Your task to perform on an android device: turn off wifi Image 0: 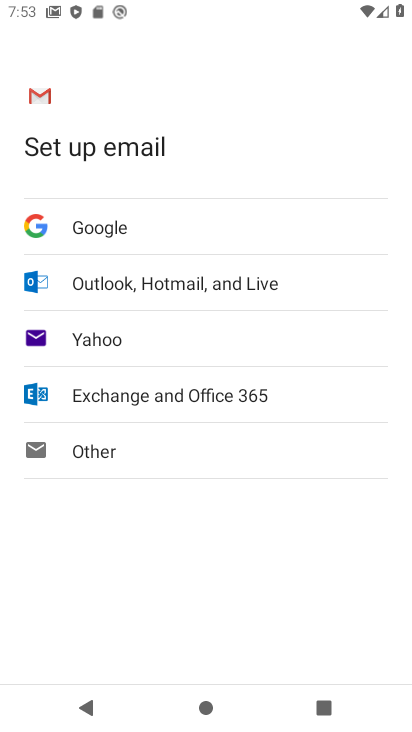
Step 0: drag from (253, 666) to (186, 81)
Your task to perform on an android device: turn off wifi Image 1: 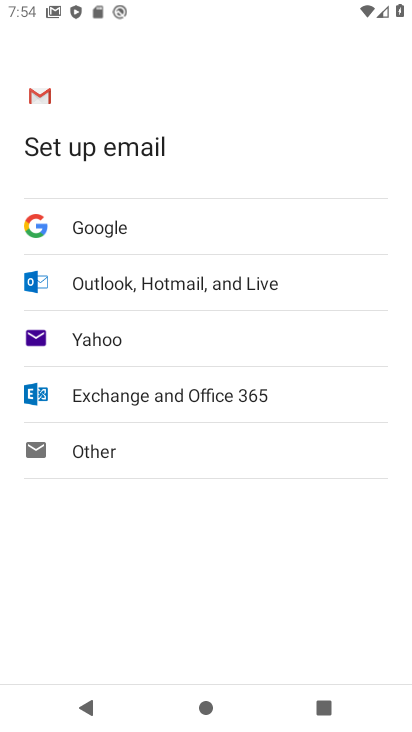
Step 1: press home button
Your task to perform on an android device: turn off wifi Image 2: 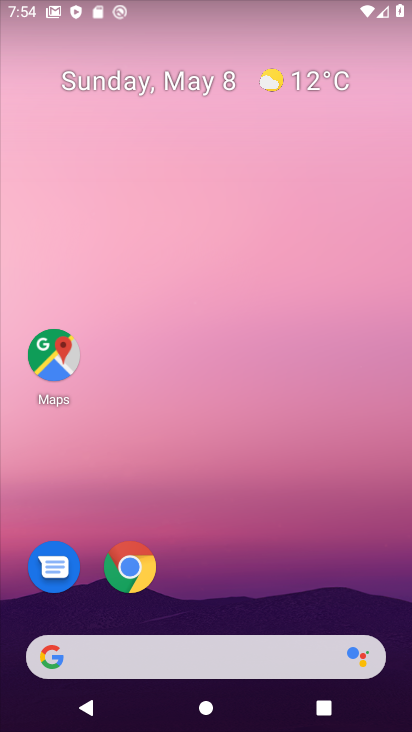
Step 2: drag from (218, 643) to (218, 9)
Your task to perform on an android device: turn off wifi Image 3: 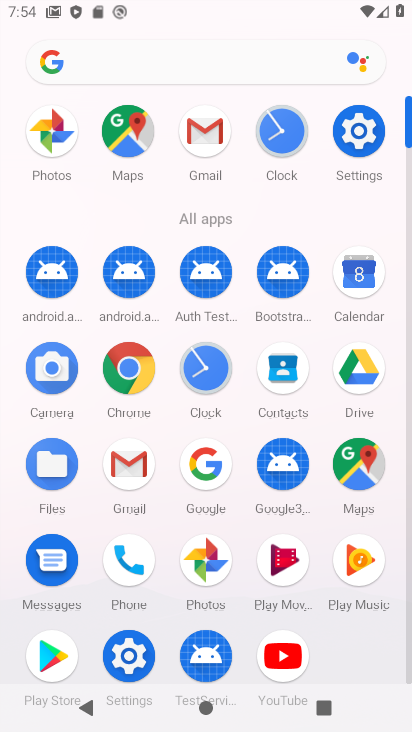
Step 3: click (350, 130)
Your task to perform on an android device: turn off wifi Image 4: 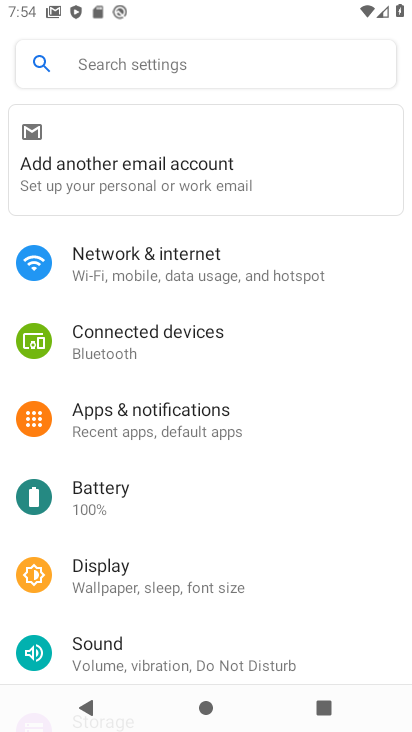
Step 4: click (223, 255)
Your task to perform on an android device: turn off wifi Image 5: 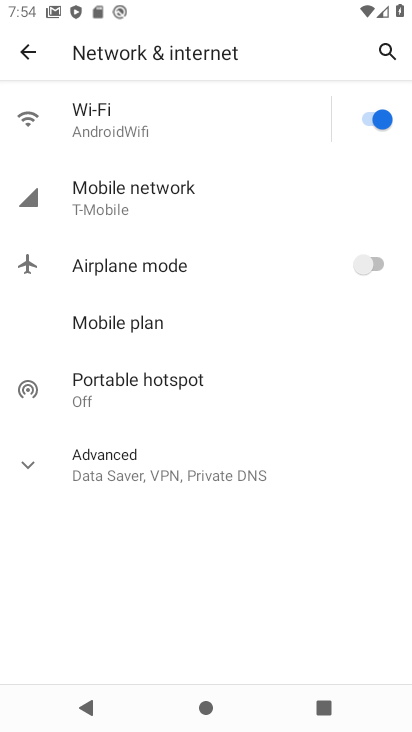
Step 5: click (381, 122)
Your task to perform on an android device: turn off wifi Image 6: 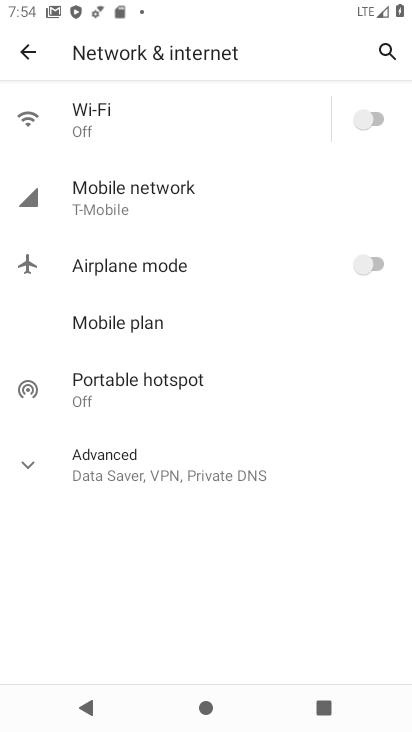
Step 6: task complete